Your task to perform on an android device: Open settings Image 0: 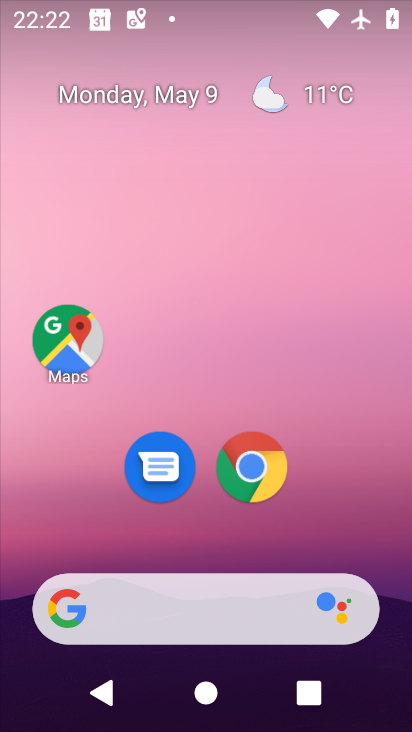
Step 0: drag from (287, 522) to (301, 240)
Your task to perform on an android device: Open settings Image 1: 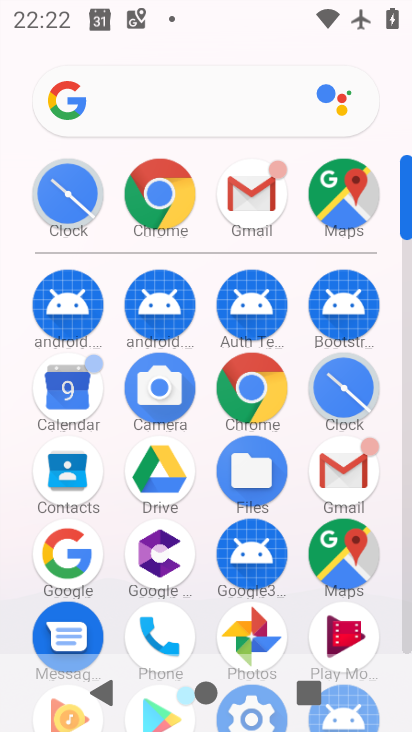
Step 1: drag from (221, 570) to (284, 264)
Your task to perform on an android device: Open settings Image 2: 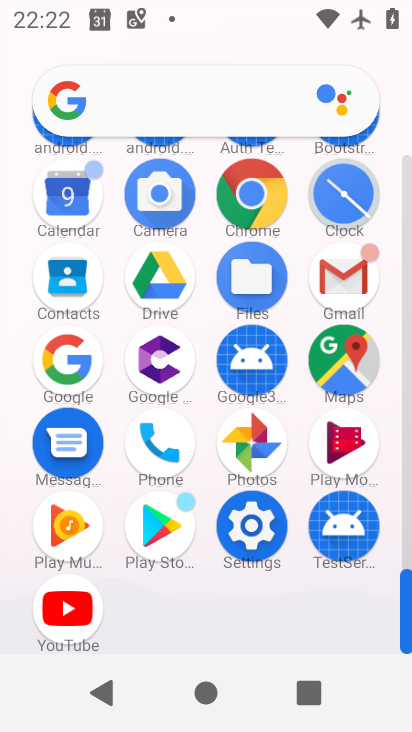
Step 2: click (252, 533)
Your task to perform on an android device: Open settings Image 3: 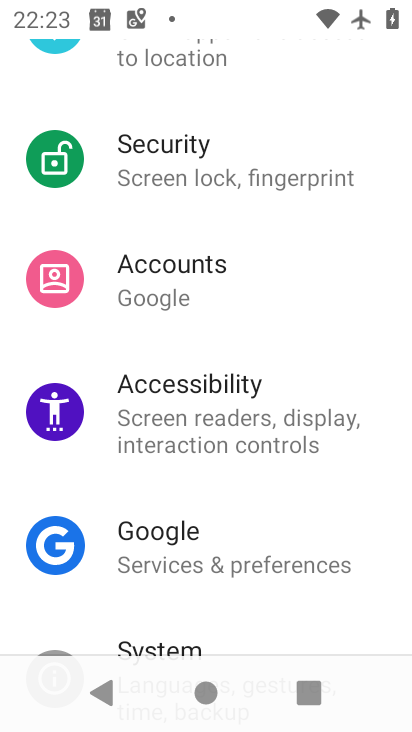
Step 3: task complete